Your task to perform on an android device: Open accessibility settings Image 0: 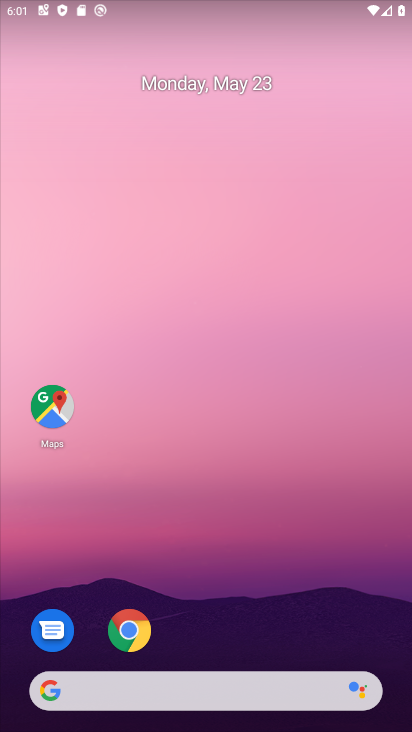
Step 0: drag from (202, 510) to (207, 39)
Your task to perform on an android device: Open accessibility settings Image 1: 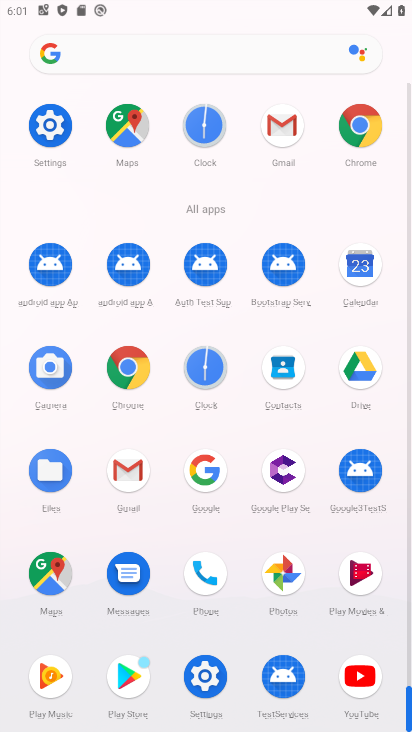
Step 1: drag from (18, 495) to (13, 163)
Your task to perform on an android device: Open accessibility settings Image 2: 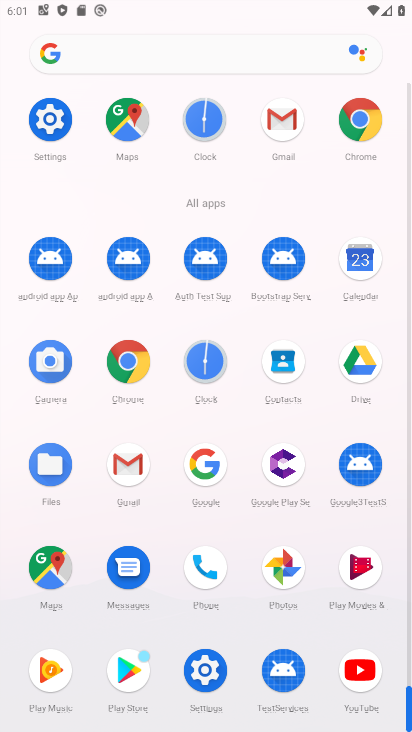
Step 2: click (203, 669)
Your task to perform on an android device: Open accessibility settings Image 3: 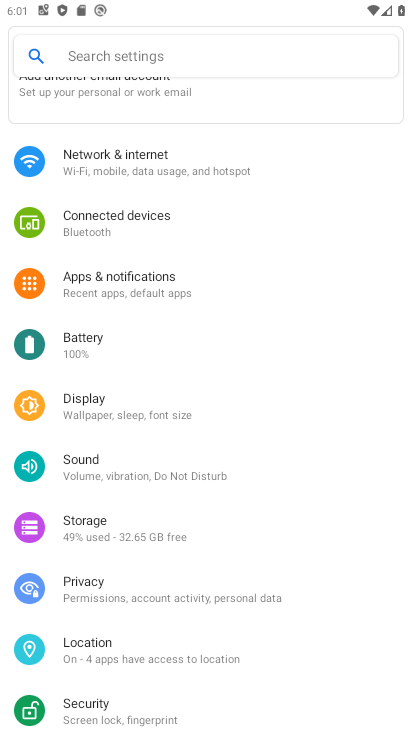
Step 3: drag from (203, 568) to (248, 142)
Your task to perform on an android device: Open accessibility settings Image 4: 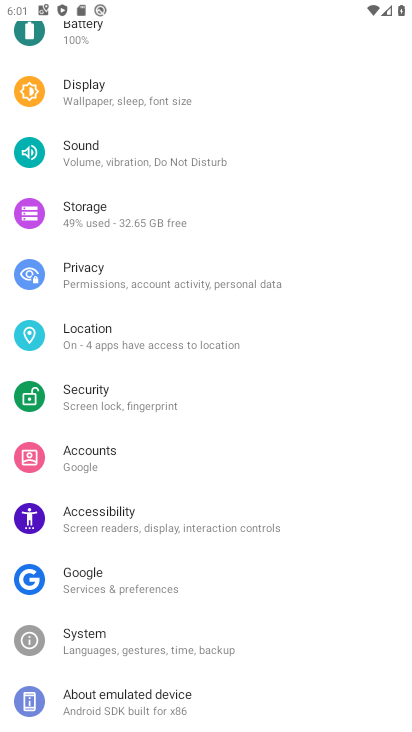
Step 4: click (159, 526)
Your task to perform on an android device: Open accessibility settings Image 5: 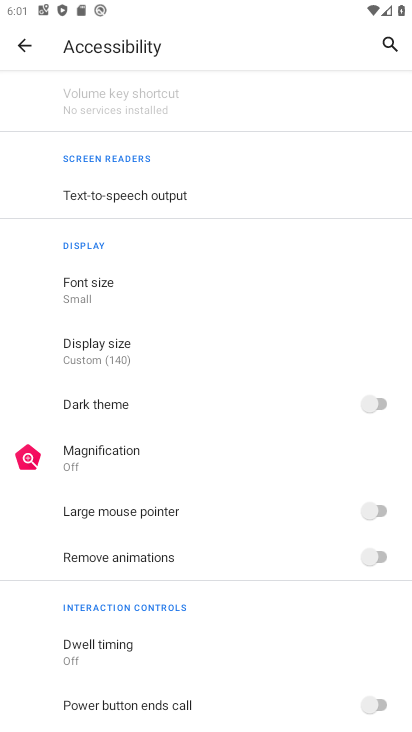
Step 5: task complete